Your task to perform on an android device: change notification settings in the gmail app Image 0: 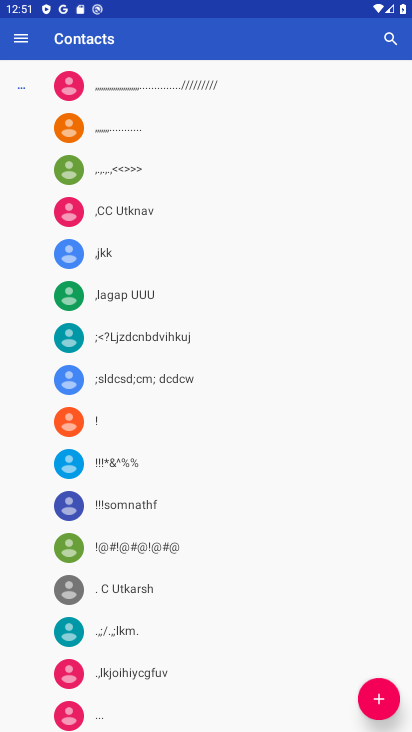
Step 0: press home button
Your task to perform on an android device: change notification settings in the gmail app Image 1: 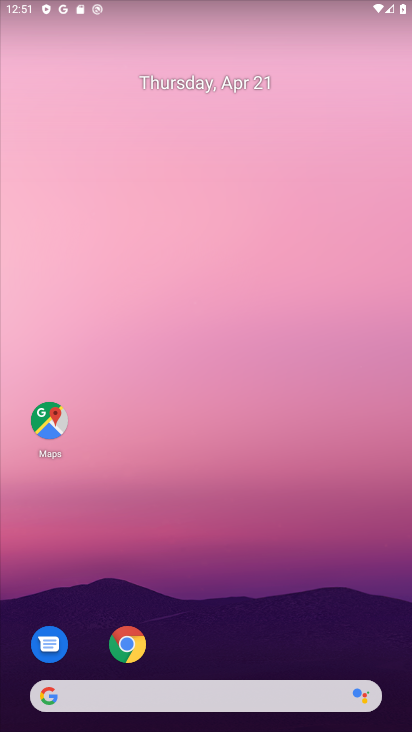
Step 1: drag from (330, 675) to (301, 261)
Your task to perform on an android device: change notification settings in the gmail app Image 2: 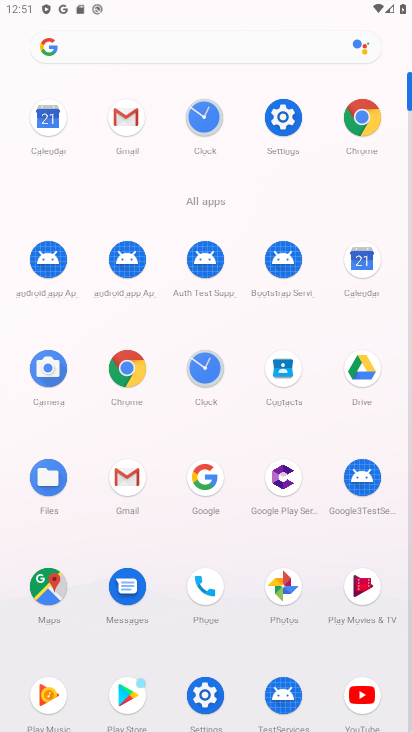
Step 2: click (137, 128)
Your task to perform on an android device: change notification settings in the gmail app Image 3: 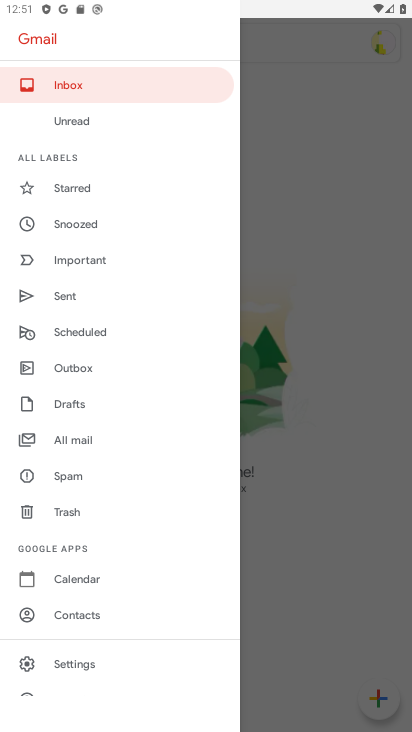
Step 3: click (74, 658)
Your task to perform on an android device: change notification settings in the gmail app Image 4: 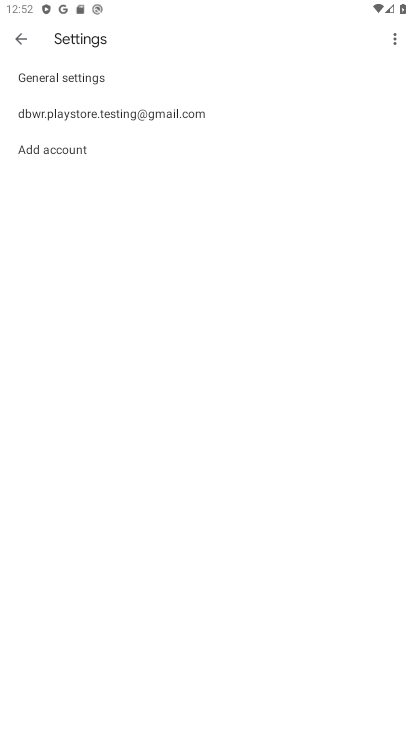
Step 4: click (278, 102)
Your task to perform on an android device: change notification settings in the gmail app Image 5: 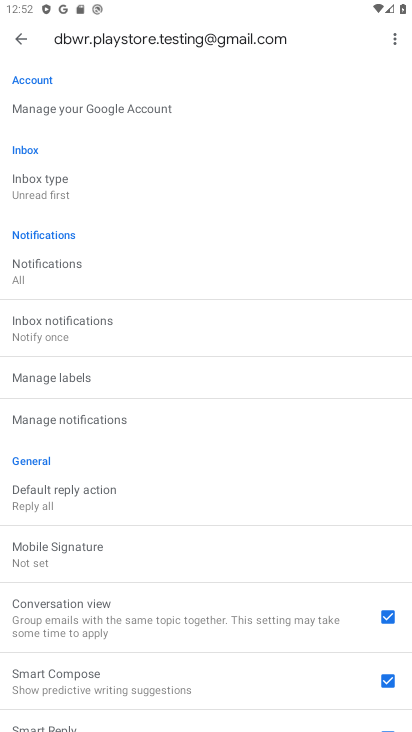
Step 5: click (192, 423)
Your task to perform on an android device: change notification settings in the gmail app Image 6: 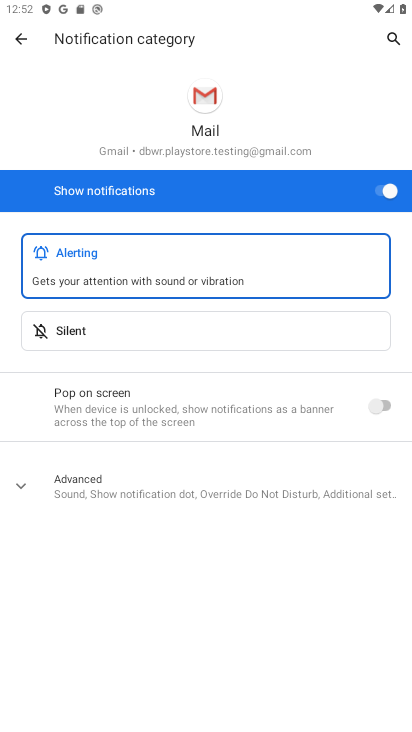
Step 6: click (326, 347)
Your task to perform on an android device: change notification settings in the gmail app Image 7: 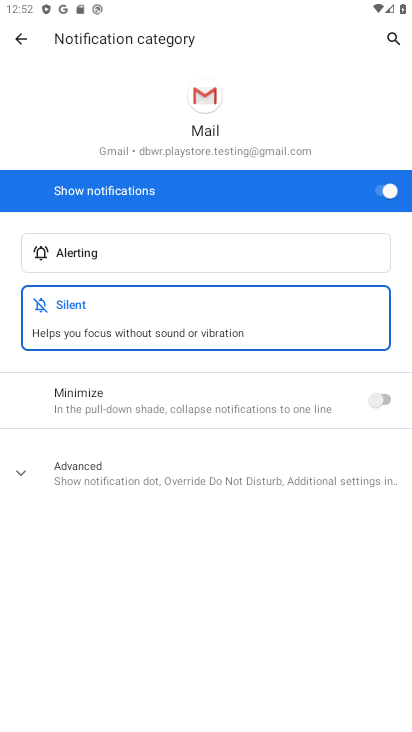
Step 7: click (386, 398)
Your task to perform on an android device: change notification settings in the gmail app Image 8: 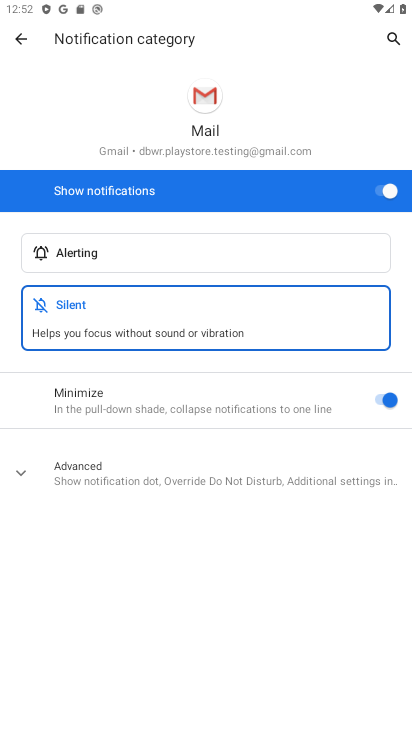
Step 8: task complete